Your task to perform on an android device: toggle improve location accuracy Image 0: 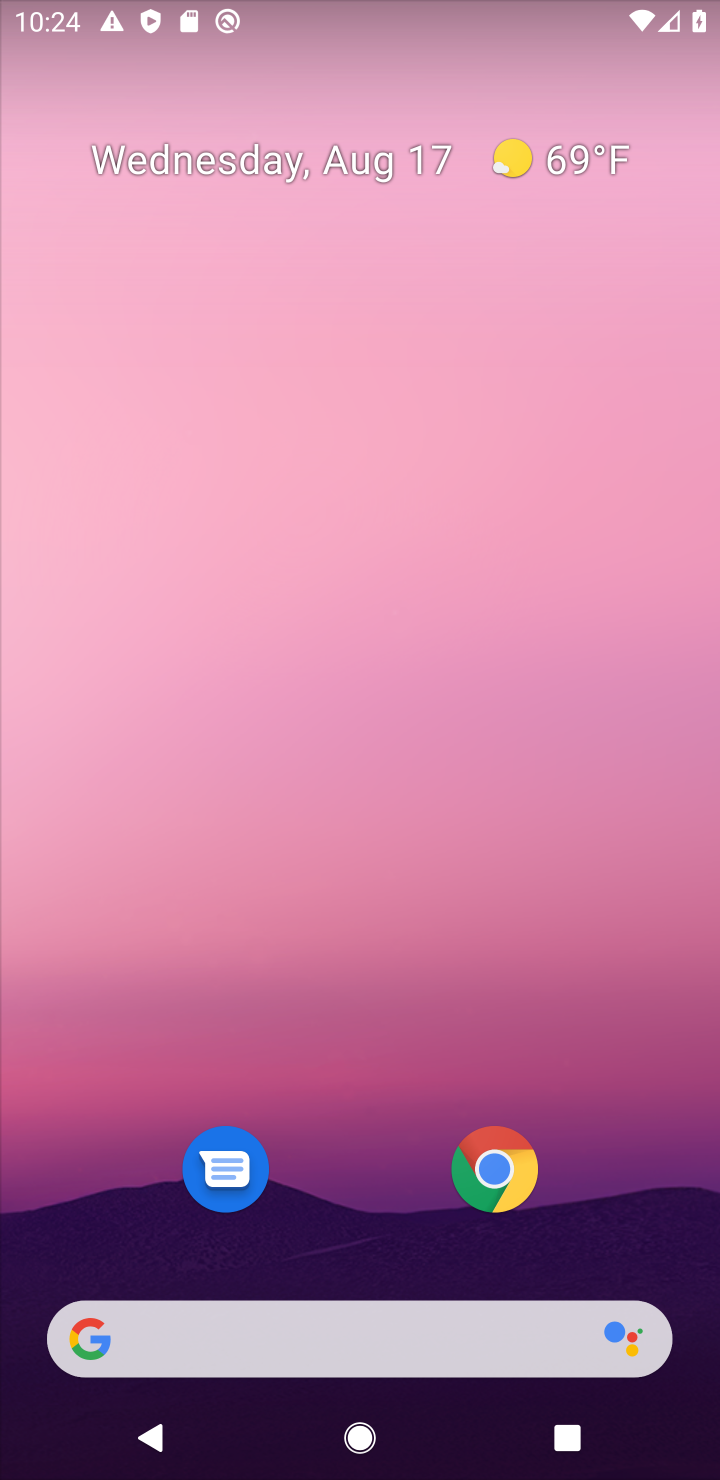
Step 0: drag from (346, 892) to (362, 308)
Your task to perform on an android device: toggle improve location accuracy Image 1: 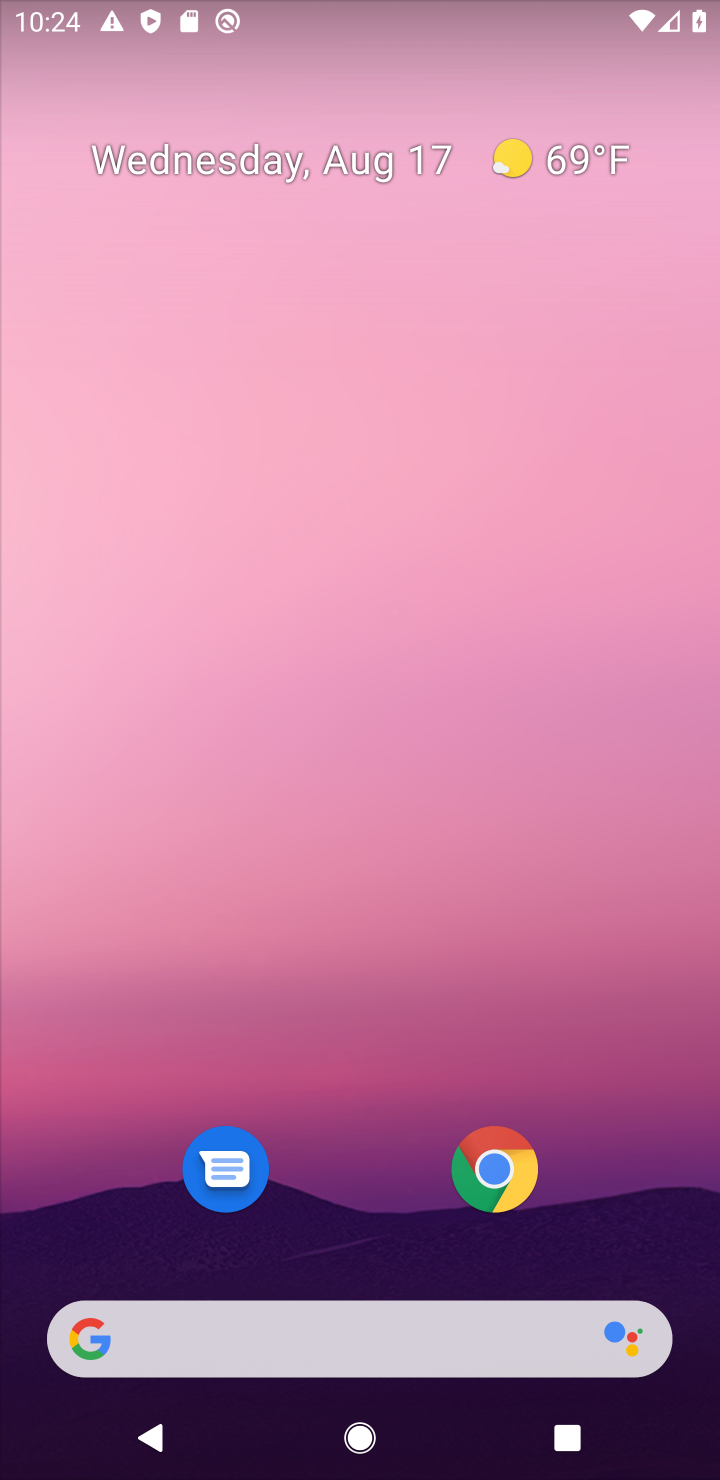
Step 1: drag from (426, 952) to (427, 323)
Your task to perform on an android device: toggle improve location accuracy Image 2: 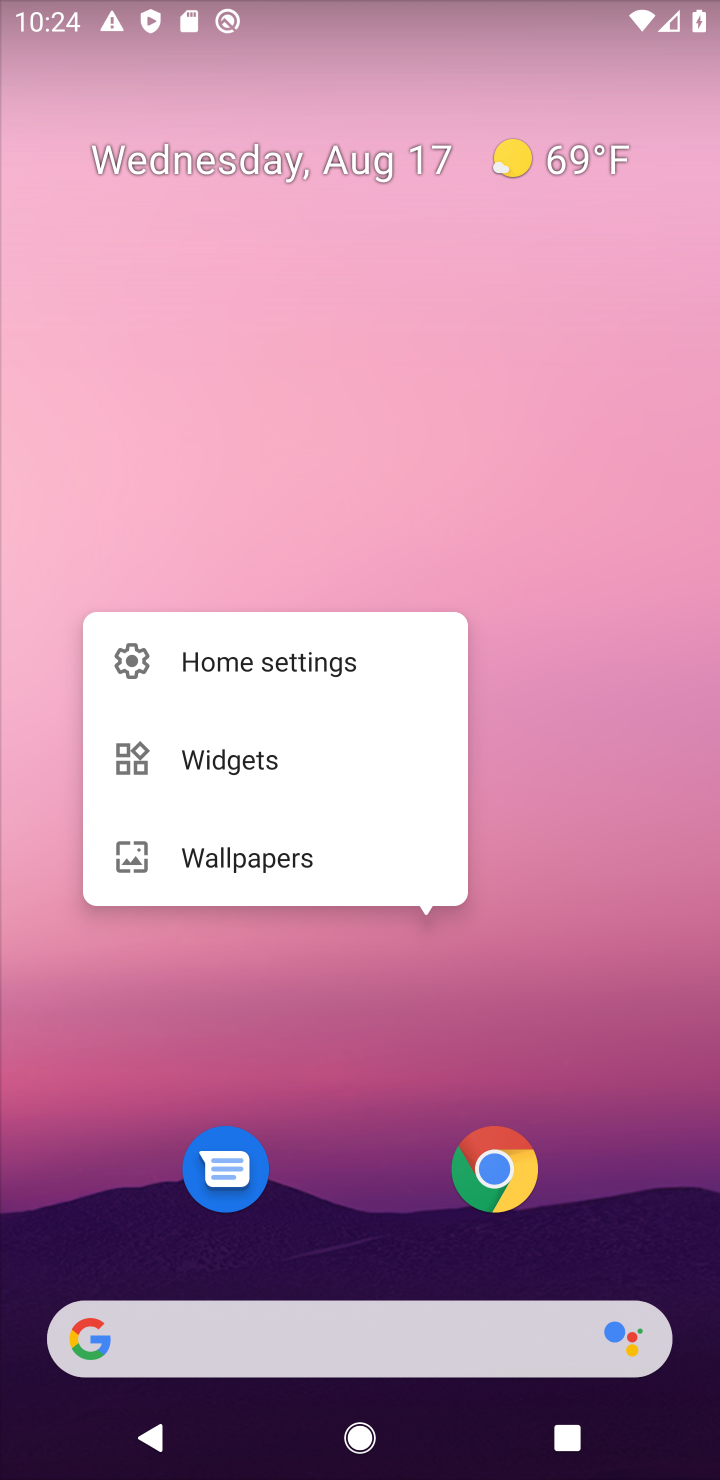
Step 2: click (319, 1097)
Your task to perform on an android device: toggle improve location accuracy Image 3: 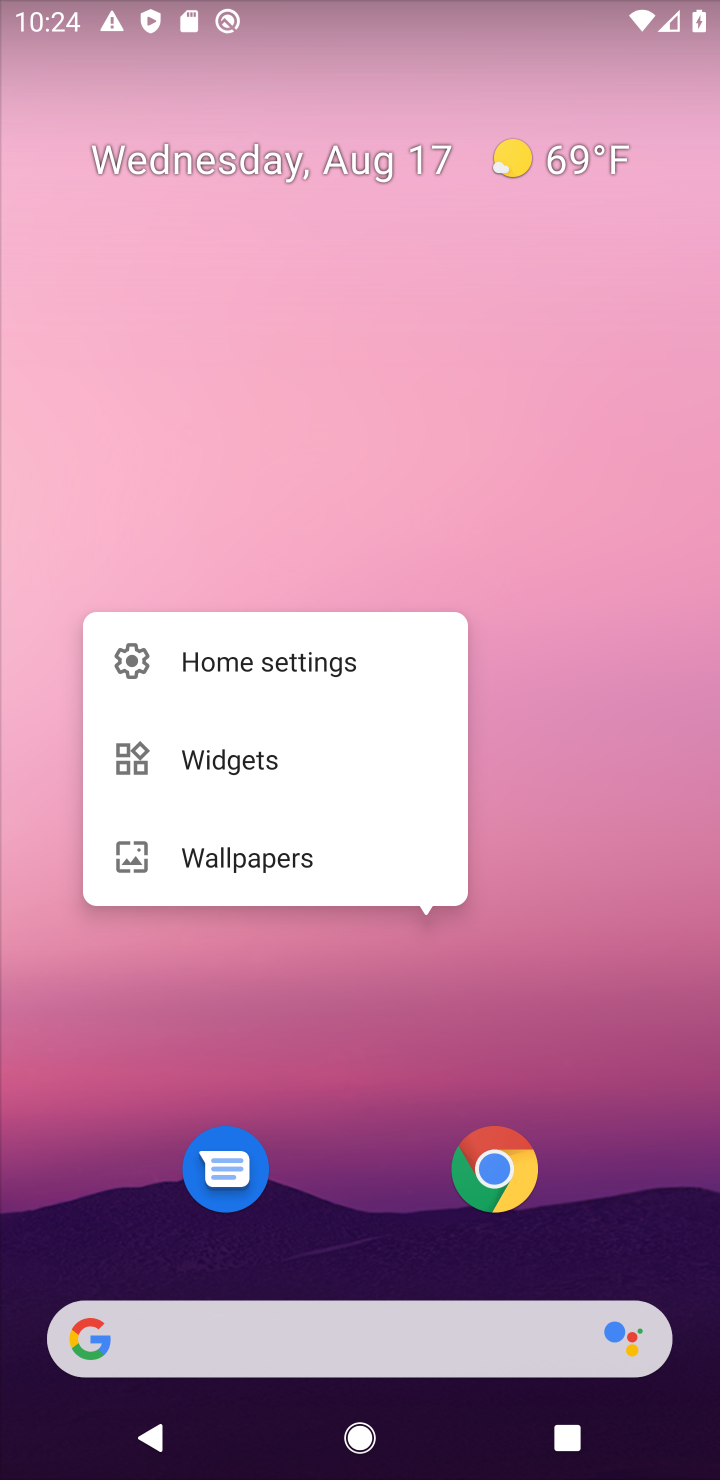
Step 3: task complete